Your task to perform on an android device: move an email to a new category in the gmail app Image 0: 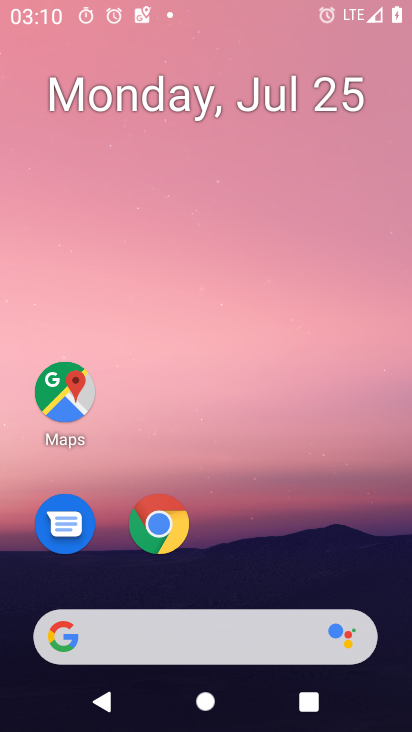
Step 0: press home button
Your task to perform on an android device: move an email to a new category in the gmail app Image 1: 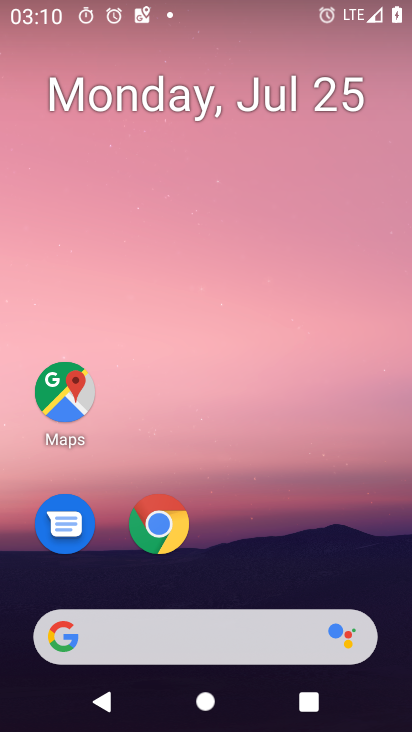
Step 1: drag from (238, 588) to (280, 96)
Your task to perform on an android device: move an email to a new category in the gmail app Image 2: 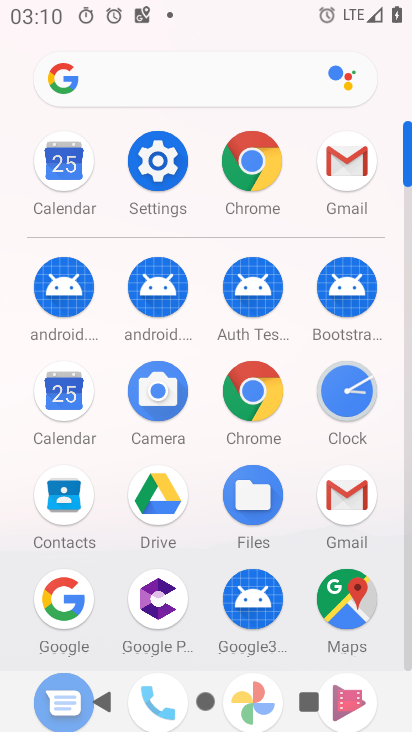
Step 2: click (346, 160)
Your task to perform on an android device: move an email to a new category in the gmail app Image 3: 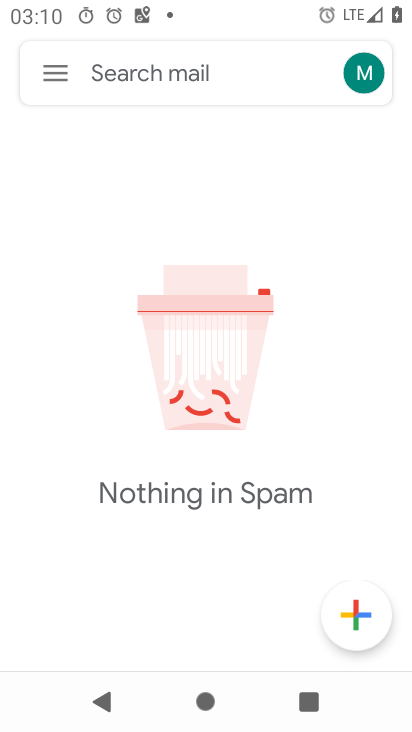
Step 3: click (44, 82)
Your task to perform on an android device: move an email to a new category in the gmail app Image 4: 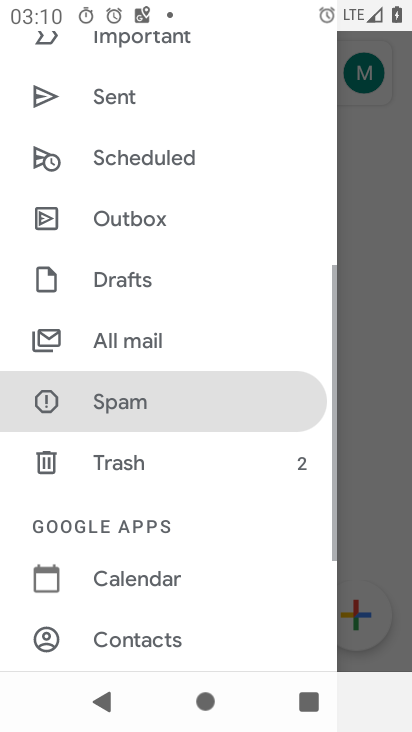
Step 4: click (128, 348)
Your task to perform on an android device: move an email to a new category in the gmail app Image 5: 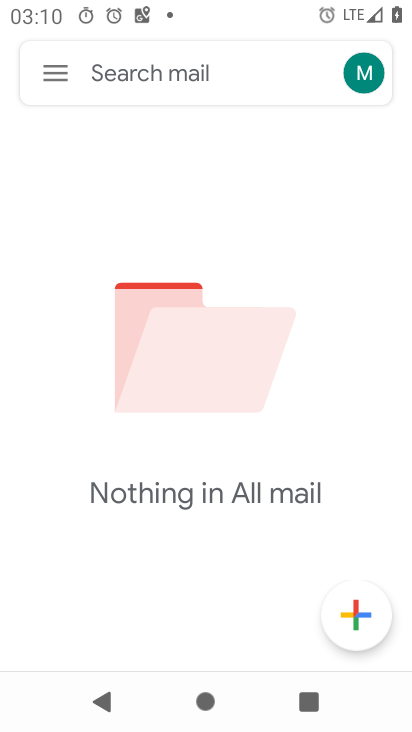
Step 5: task complete